Your task to perform on an android device: move an email to a new category in the gmail app Image 0: 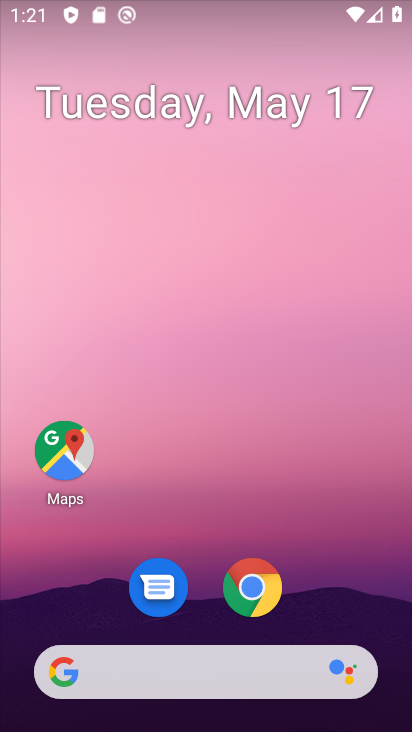
Step 0: drag from (343, 597) to (347, 245)
Your task to perform on an android device: move an email to a new category in the gmail app Image 1: 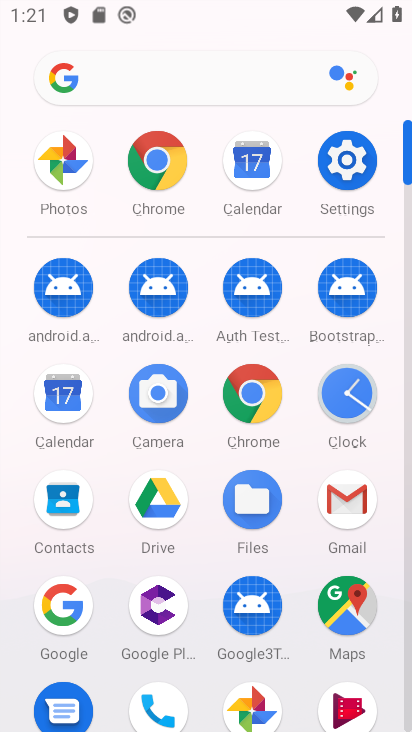
Step 1: click (347, 497)
Your task to perform on an android device: move an email to a new category in the gmail app Image 2: 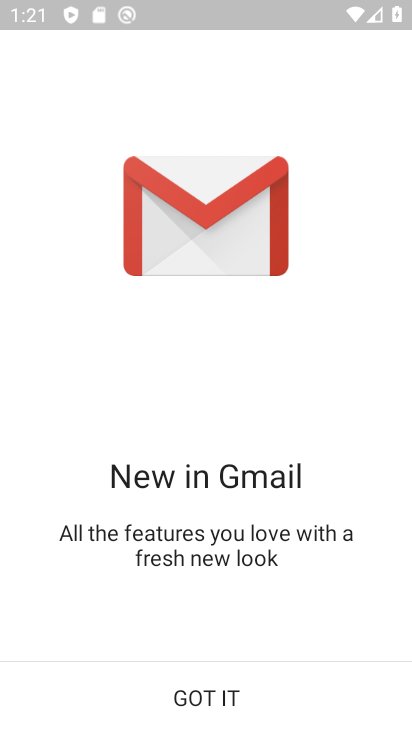
Step 2: click (210, 682)
Your task to perform on an android device: move an email to a new category in the gmail app Image 3: 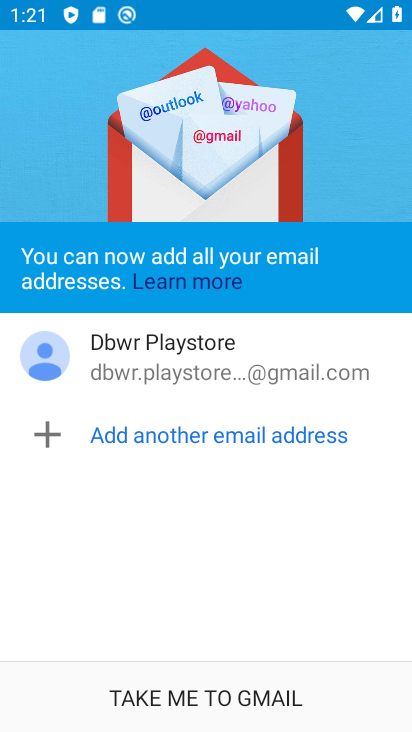
Step 3: click (211, 684)
Your task to perform on an android device: move an email to a new category in the gmail app Image 4: 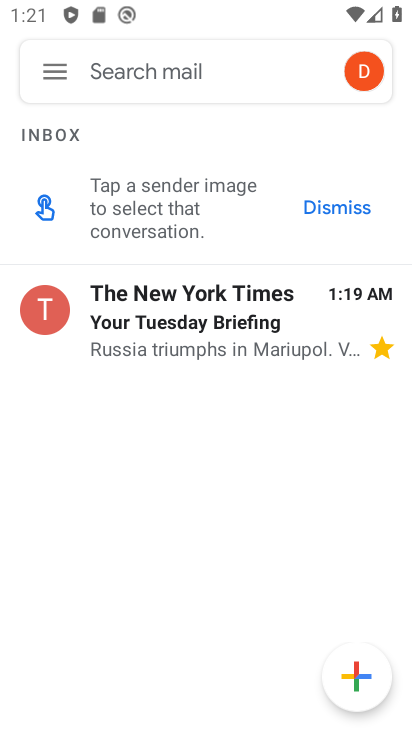
Step 4: click (300, 300)
Your task to perform on an android device: move an email to a new category in the gmail app Image 5: 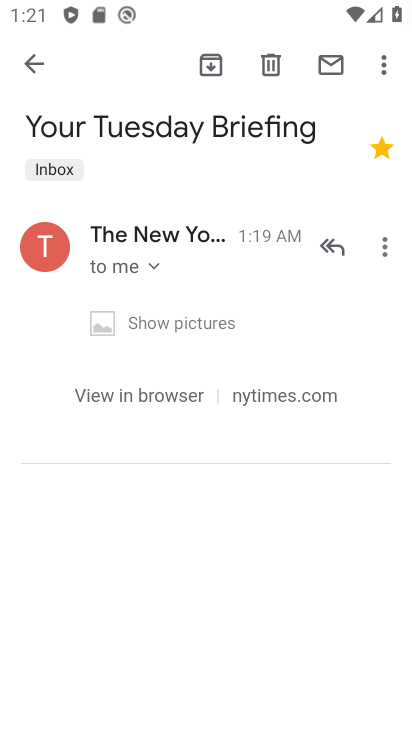
Step 5: click (378, 68)
Your task to perform on an android device: move an email to a new category in the gmail app Image 6: 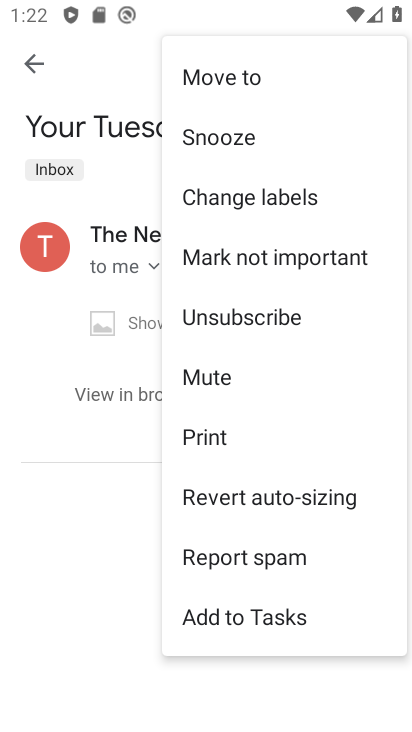
Step 6: click (266, 126)
Your task to perform on an android device: move an email to a new category in the gmail app Image 7: 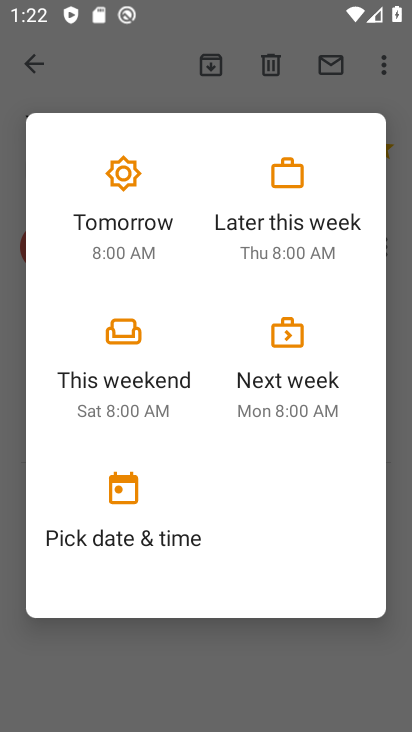
Step 7: click (176, 186)
Your task to perform on an android device: move an email to a new category in the gmail app Image 8: 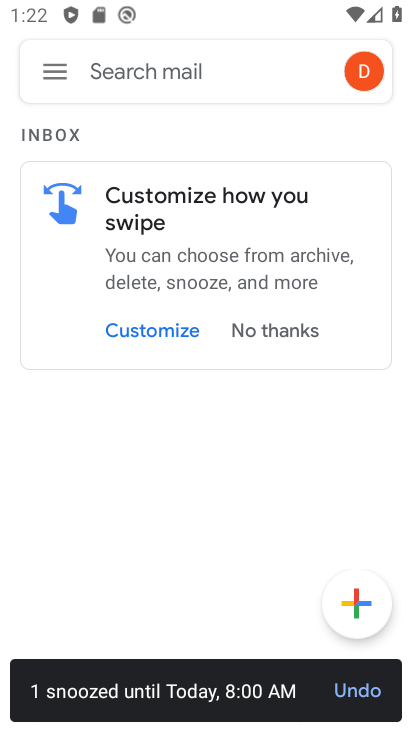
Step 8: task complete